Your task to perform on an android device: Open calendar and show me the fourth week of next month Image 0: 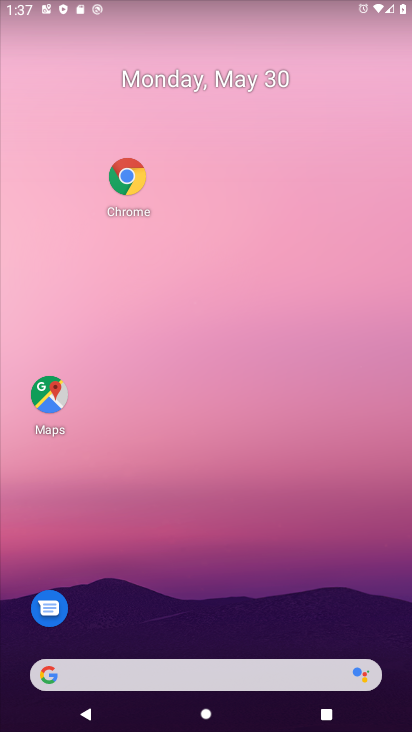
Step 0: drag from (268, 556) to (253, 88)
Your task to perform on an android device: Open calendar and show me the fourth week of next month Image 1: 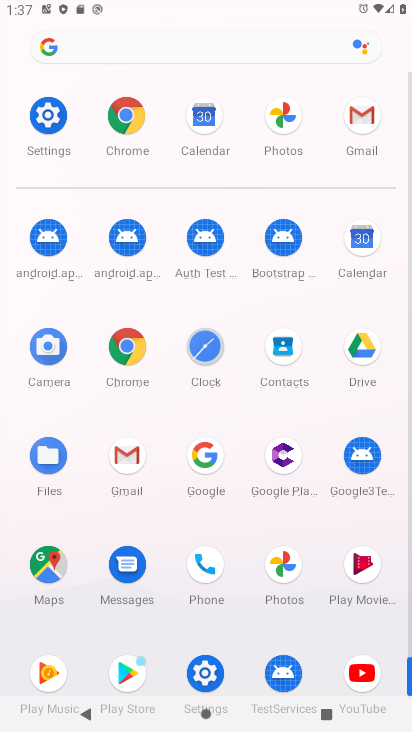
Step 1: click (202, 109)
Your task to perform on an android device: Open calendar and show me the fourth week of next month Image 2: 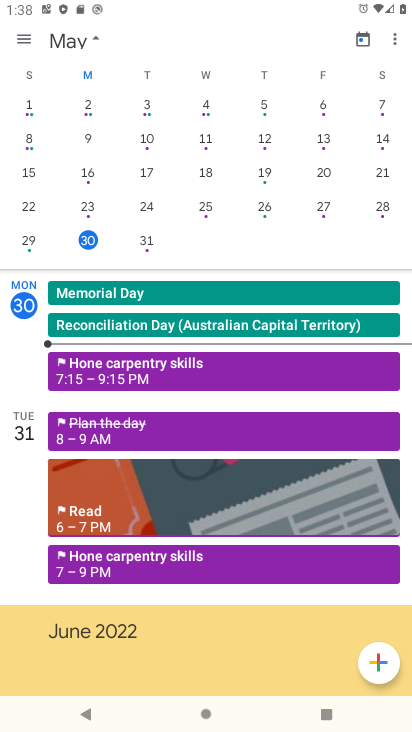
Step 2: click (89, 35)
Your task to perform on an android device: Open calendar and show me the fourth week of next month Image 3: 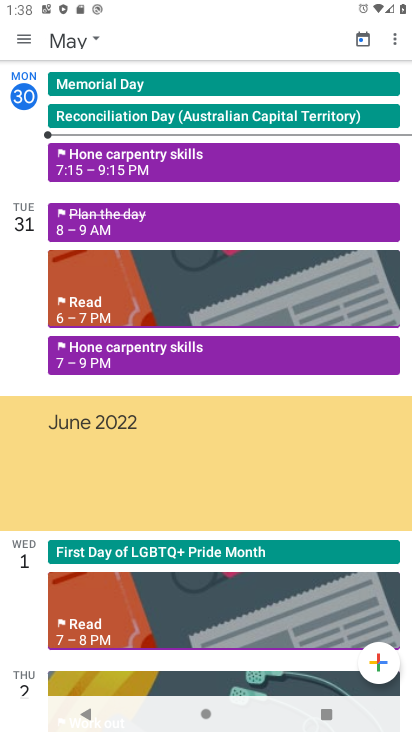
Step 3: click (90, 40)
Your task to perform on an android device: Open calendar and show me the fourth week of next month Image 4: 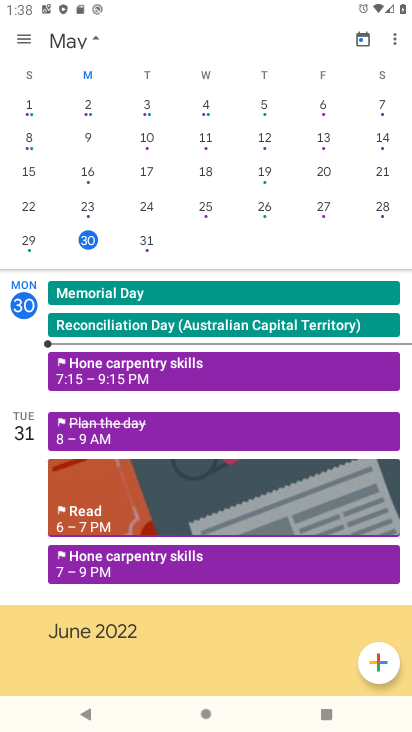
Step 4: drag from (382, 176) to (39, 167)
Your task to perform on an android device: Open calendar and show me the fourth week of next month Image 5: 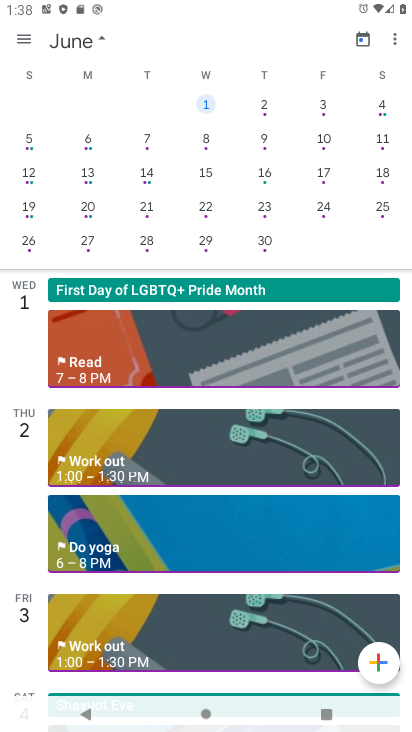
Step 5: click (210, 202)
Your task to perform on an android device: Open calendar and show me the fourth week of next month Image 6: 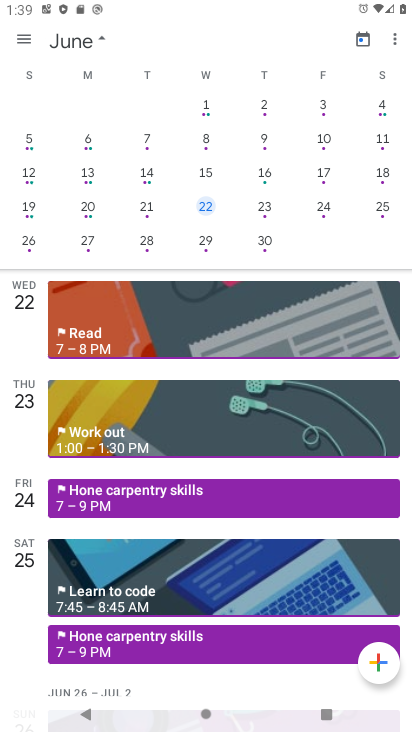
Step 6: task complete